Your task to perform on an android device: turn off notifications in google photos Image 0: 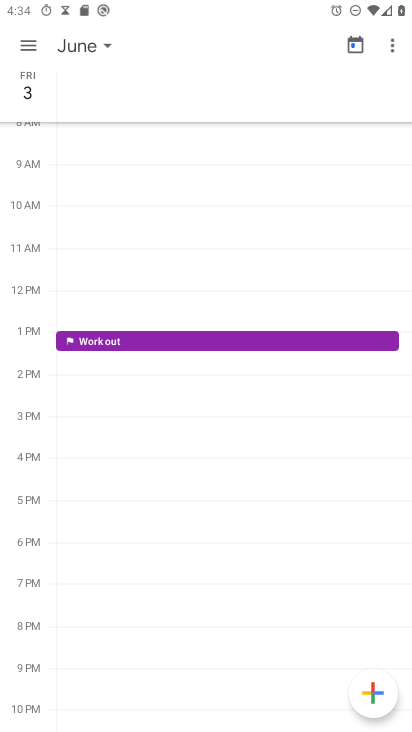
Step 0: press home button
Your task to perform on an android device: turn off notifications in google photos Image 1: 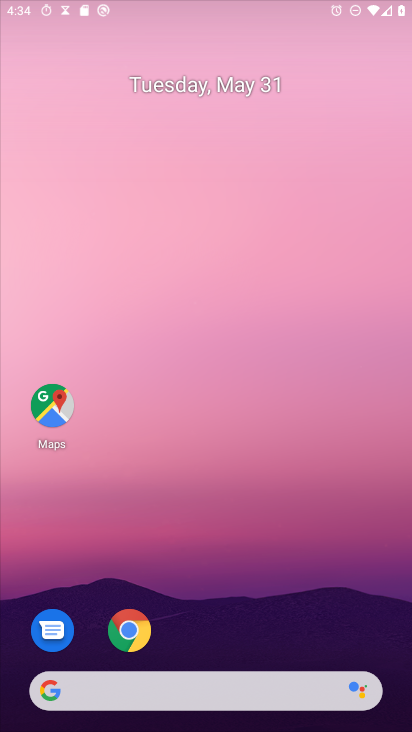
Step 1: drag from (361, 693) to (338, 77)
Your task to perform on an android device: turn off notifications in google photos Image 2: 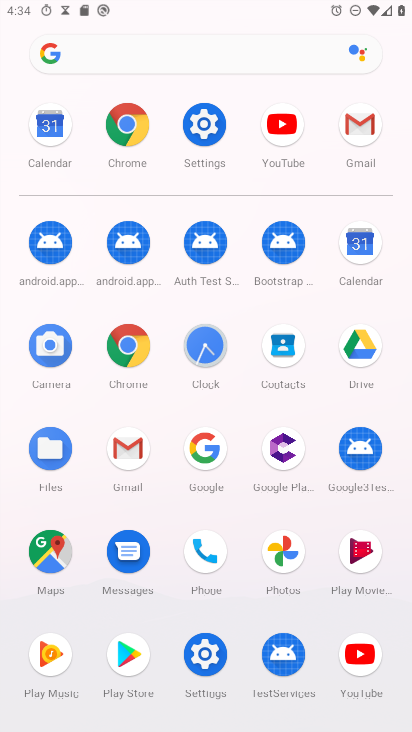
Step 2: click (284, 565)
Your task to perform on an android device: turn off notifications in google photos Image 3: 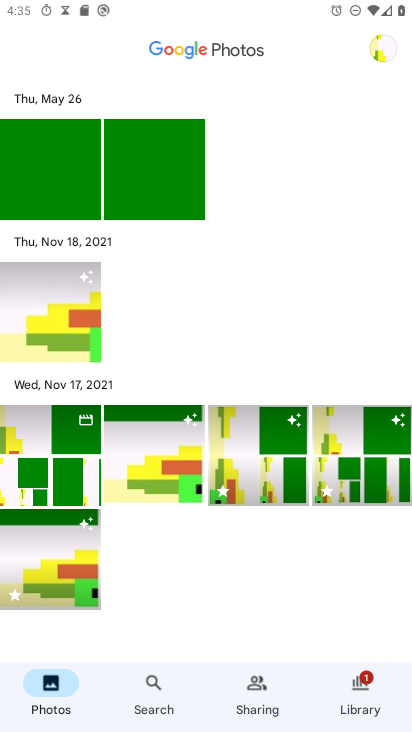
Step 3: click (394, 52)
Your task to perform on an android device: turn off notifications in google photos Image 4: 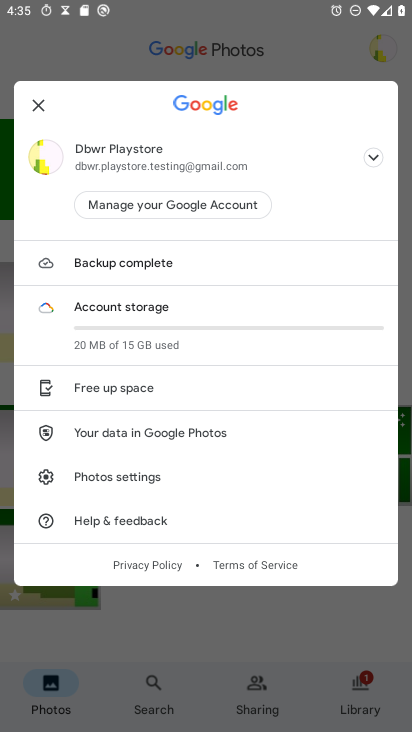
Step 4: click (161, 479)
Your task to perform on an android device: turn off notifications in google photos Image 5: 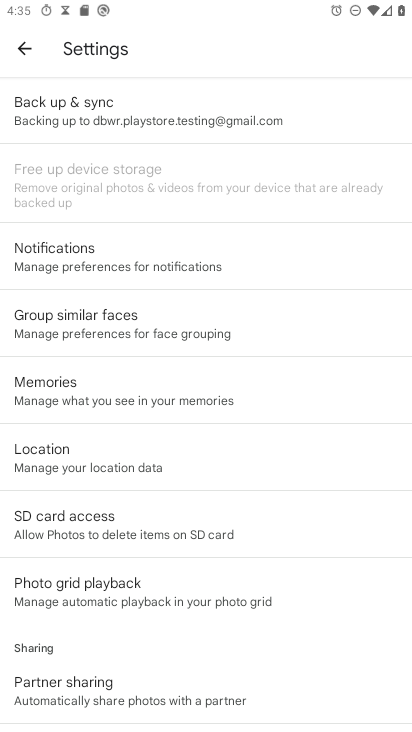
Step 5: click (148, 260)
Your task to perform on an android device: turn off notifications in google photos Image 6: 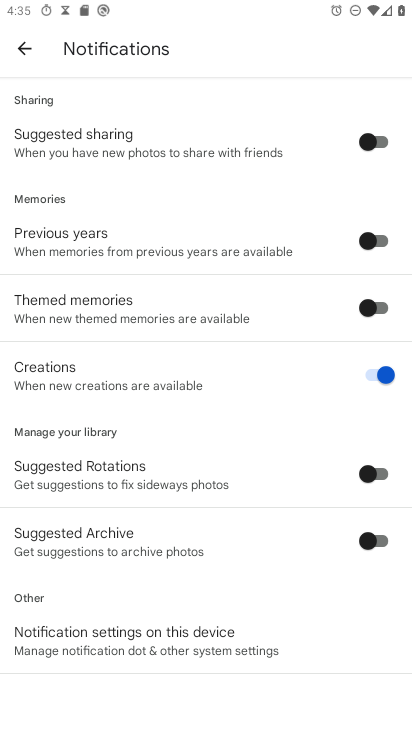
Step 6: click (307, 649)
Your task to perform on an android device: turn off notifications in google photos Image 7: 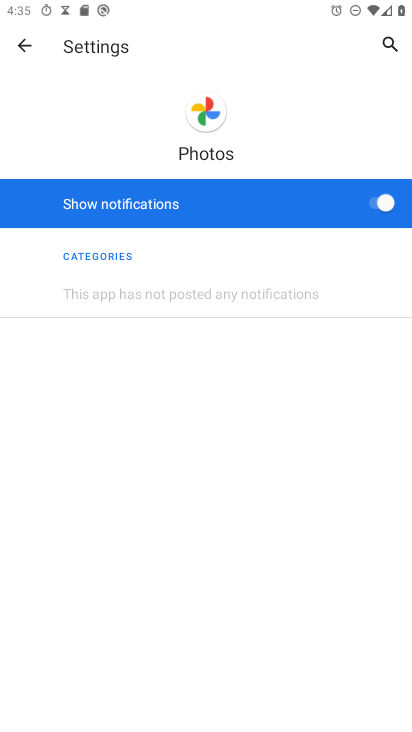
Step 7: click (368, 209)
Your task to perform on an android device: turn off notifications in google photos Image 8: 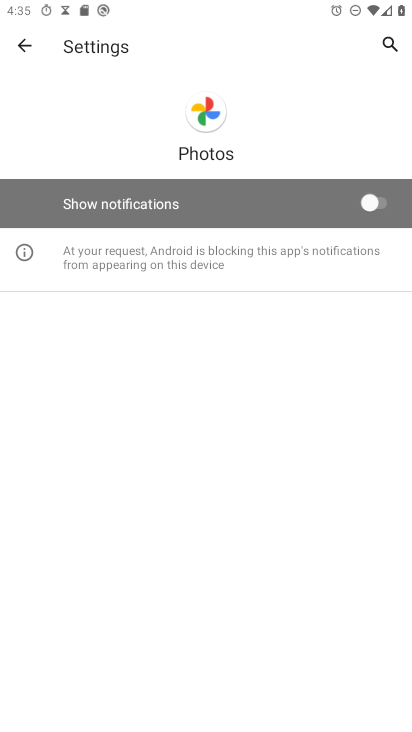
Step 8: task complete